Your task to perform on an android device: Play the last video I watched on Youtube Image 0: 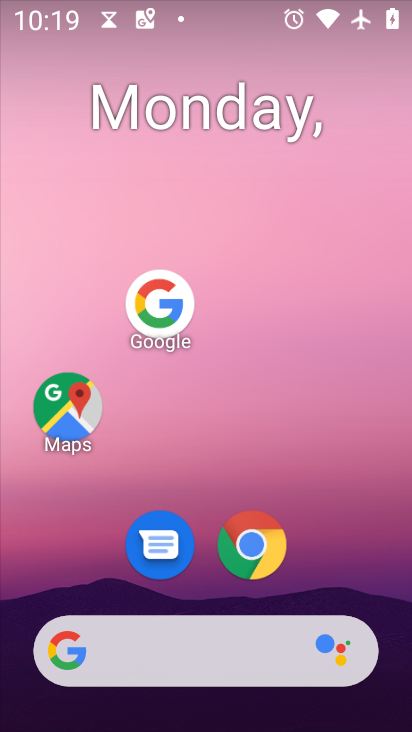
Step 0: press home button
Your task to perform on an android device: Play the last video I watched on Youtube Image 1: 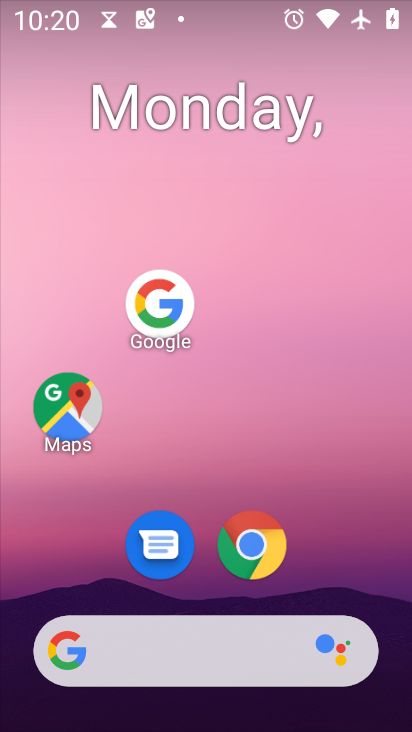
Step 1: drag from (200, 683) to (330, 83)
Your task to perform on an android device: Play the last video I watched on Youtube Image 2: 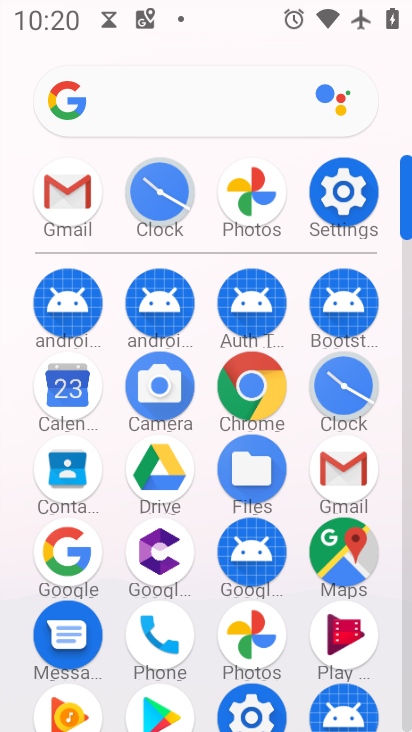
Step 2: drag from (203, 638) to (336, 149)
Your task to perform on an android device: Play the last video I watched on Youtube Image 3: 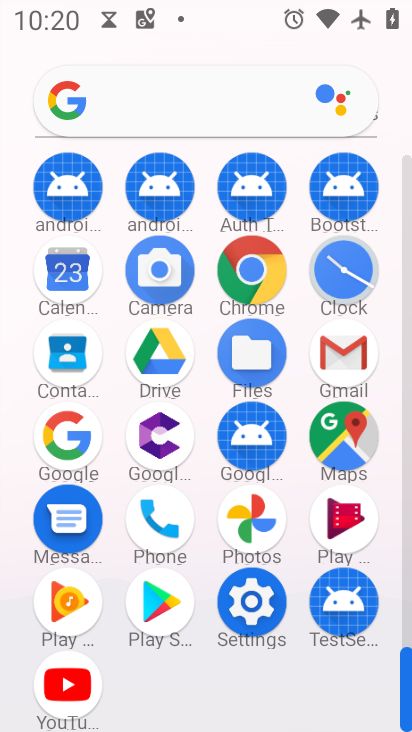
Step 3: click (86, 686)
Your task to perform on an android device: Play the last video I watched on Youtube Image 4: 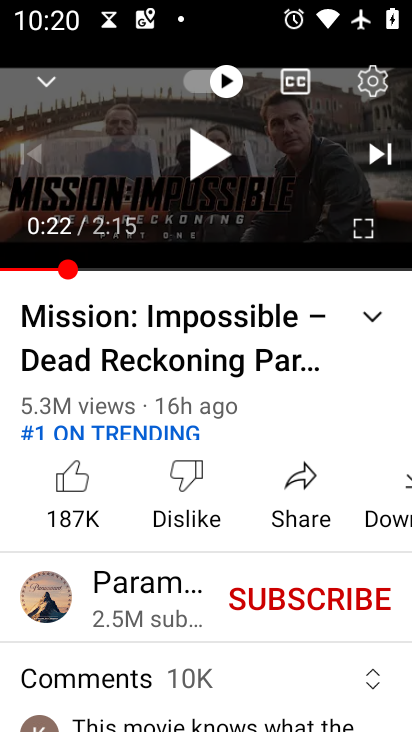
Step 4: click (214, 152)
Your task to perform on an android device: Play the last video I watched on Youtube Image 5: 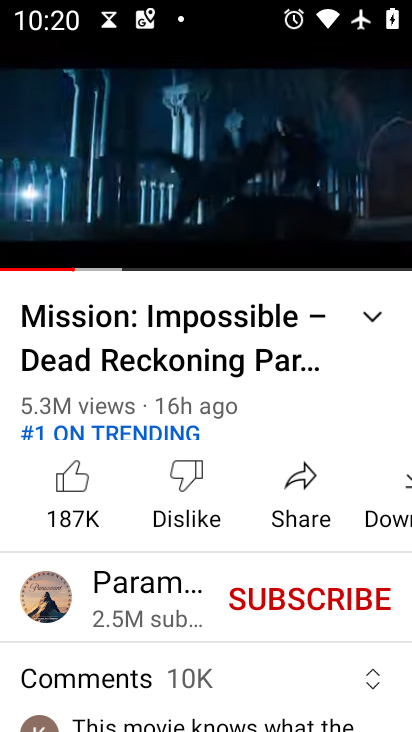
Step 5: click (205, 138)
Your task to perform on an android device: Play the last video I watched on Youtube Image 6: 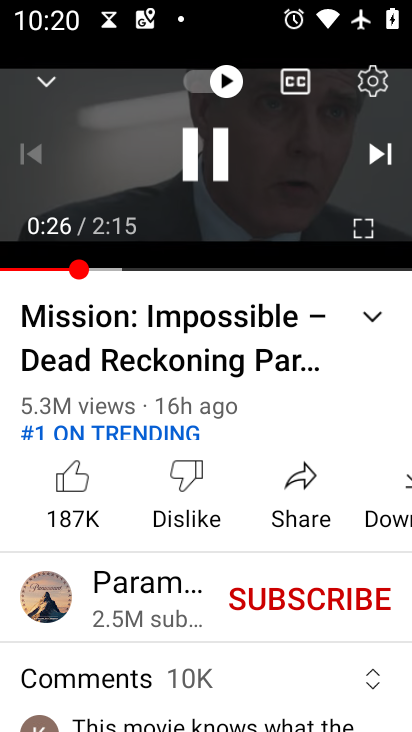
Step 6: click (205, 138)
Your task to perform on an android device: Play the last video I watched on Youtube Image 7: 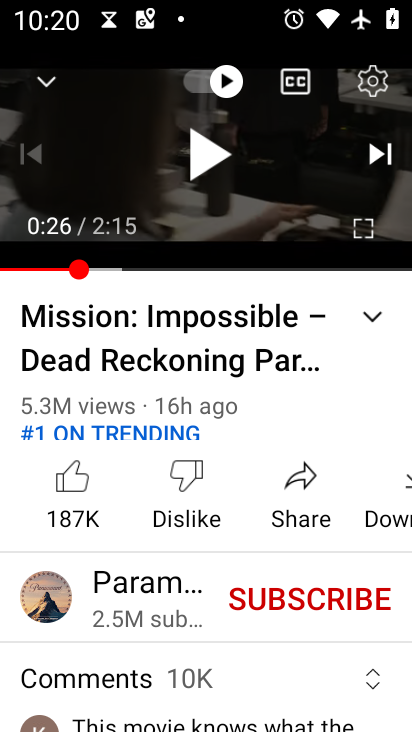
Step 7: task complete